Your task to perform on an android device: turn off notifications settings in the gmail app Image 0: 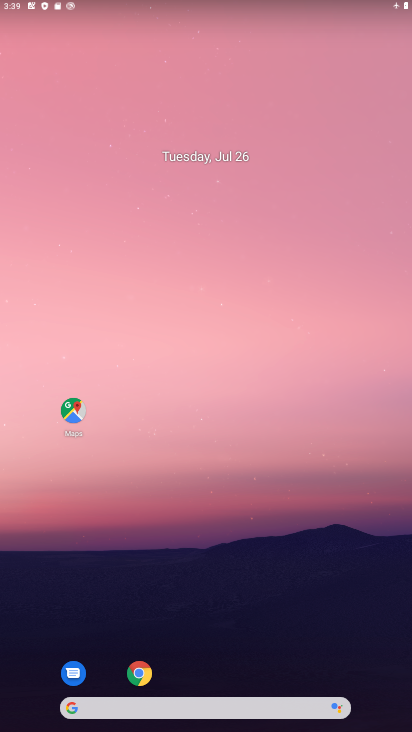
Step 0: drag from (307, 678) to (318, 5)
Your task to perform on an android device: turn off notifications settings in the gmail app Image 1: 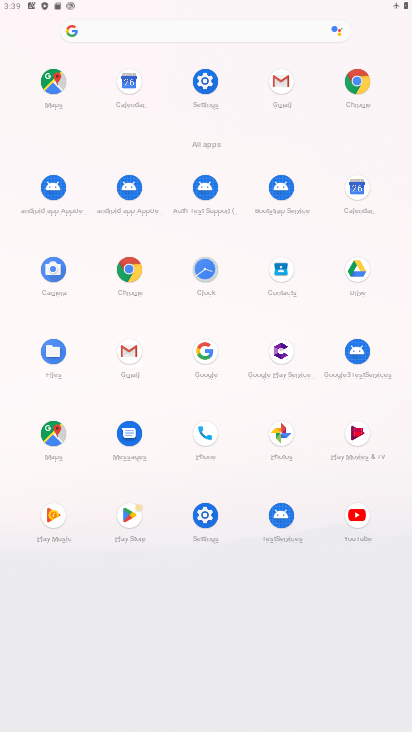
Step 1: click (281, 92)
Your task to perform on an android device: turn off notifications settings in the gmail app Image 2: 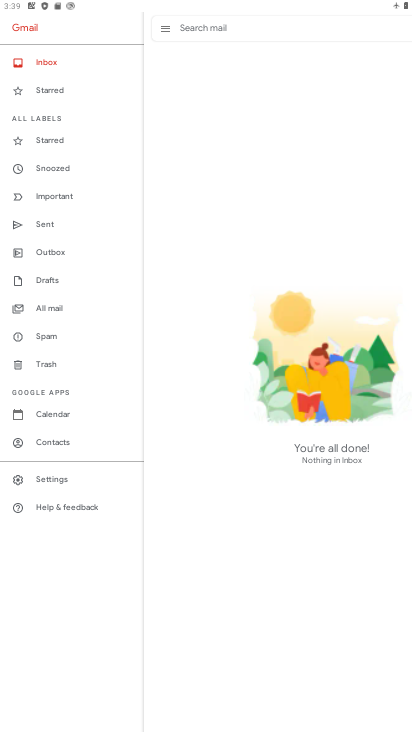
Step 2: click (39, 485)
Your task to perform on an android device: turn off notifications settings in the gmail app Image 3: 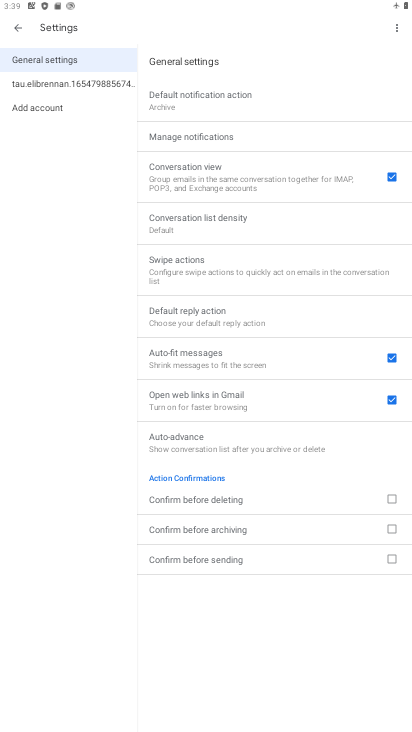
Step 3: click (176, 139)
Your task to perform on an android device: turn off notifications settings in the gmail app Image 4: 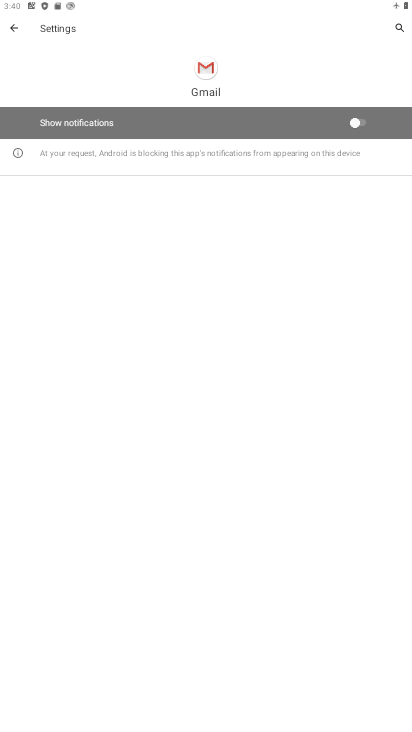
Step 4: task complete